Your task to perform on an android device: Open Maps and search for coffee Image 0: 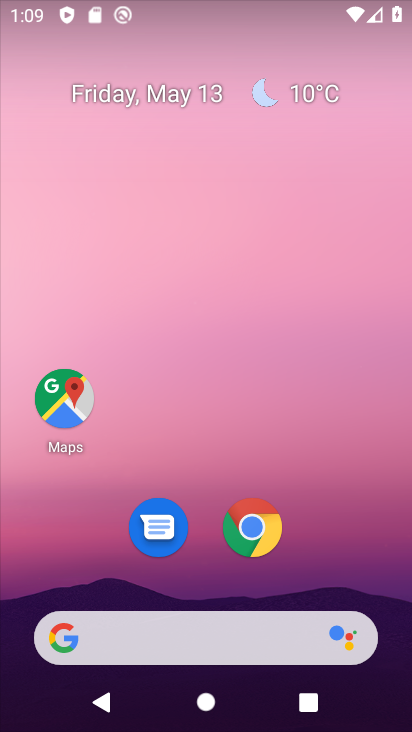
Step 0: click (75, 405)
Your task to perform on an android device: Open Maps and search for coffee Image 1: 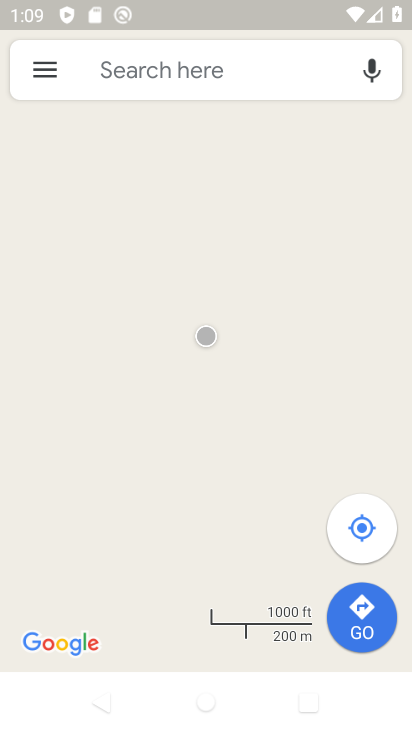
Step 1: click (221, 85)
Your task to perform on an android device: Open Maps and search for coffee Image 2: 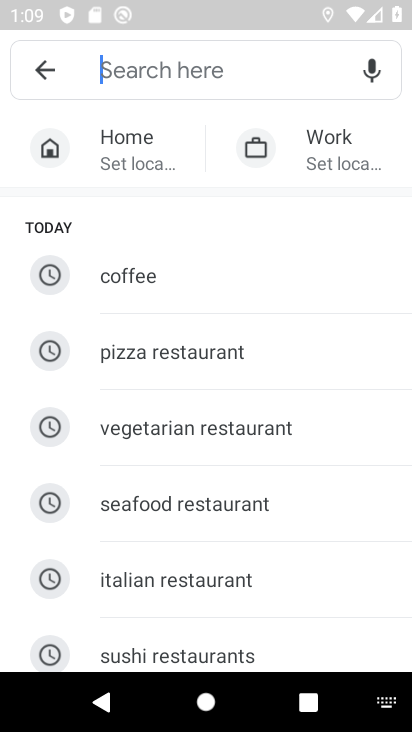
Step 2: type "coffee"
Your task to perform on an android device: Open Maps and search for coffee Image 3: 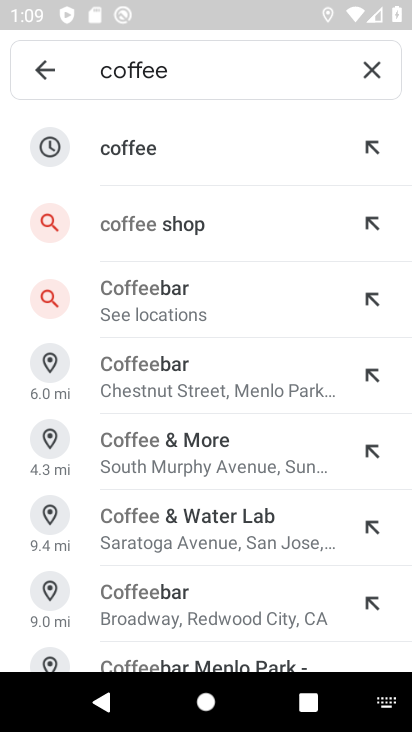
Step 3: click (142, 159)
Your task to perform on an android device: Open Maps and search for coffee Image 4: 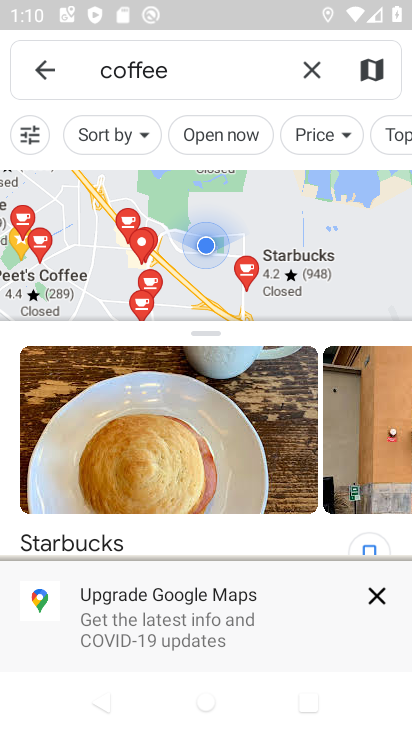
Step 4: task complete